Your task to perform on an android device: Open Reddit.com Image 0: 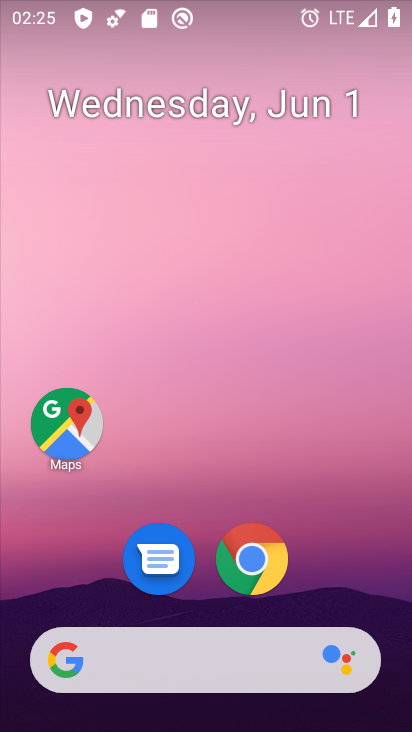
Step 0: press home button
Your task to perform on an android device: Open Reddit.com Image 1: 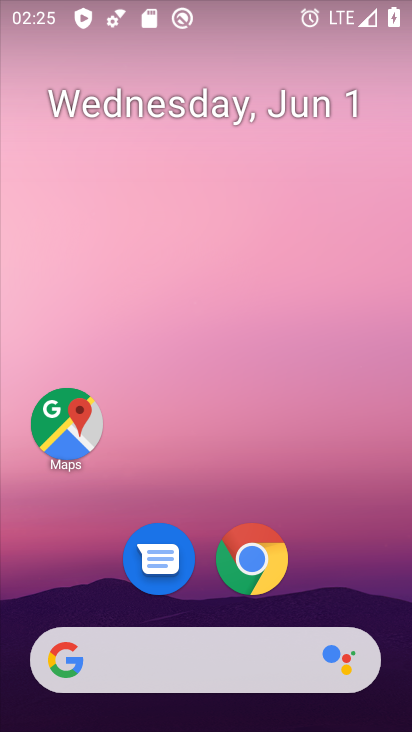
Step 1: click (61, 648)
Your task to perform on an android device: Open Reddit.com Image 2: 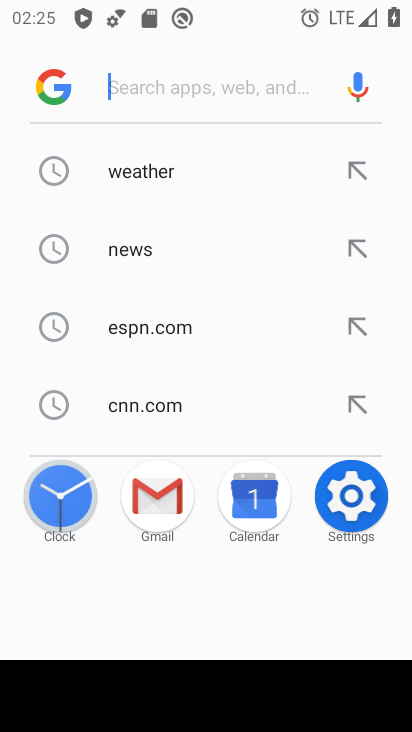
Step 2: type "Reddit.com"
Your task to perform on an android device: Open Reddit.com Image 3: 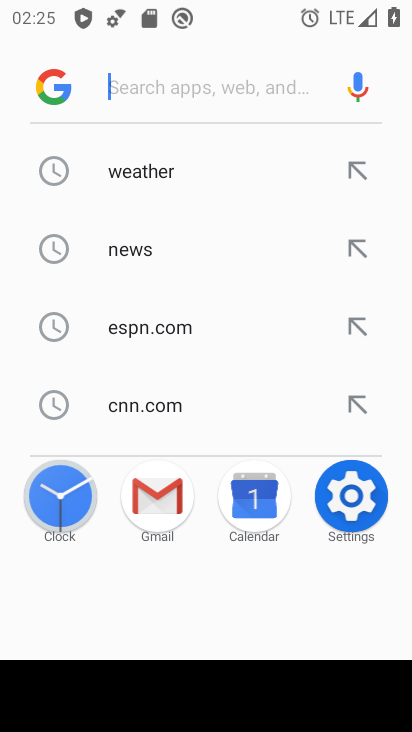
Step 3: click (193, 85)
Your task to perform on an android device: Open Reddit.com Image 4: 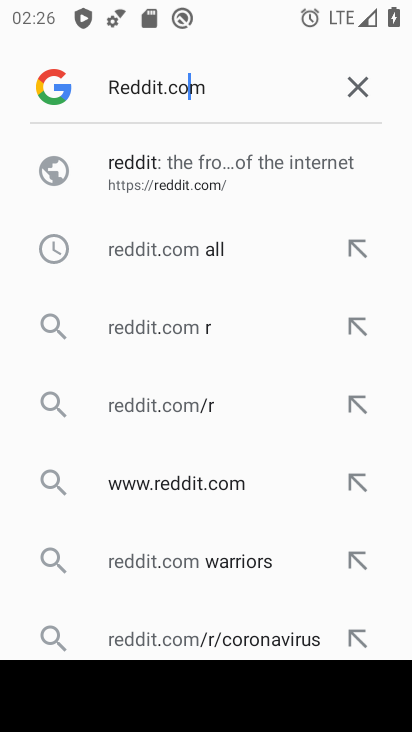
Step 4: click (139, 160)
Your task to perform on an android device: Open Reddit.com Image 5: 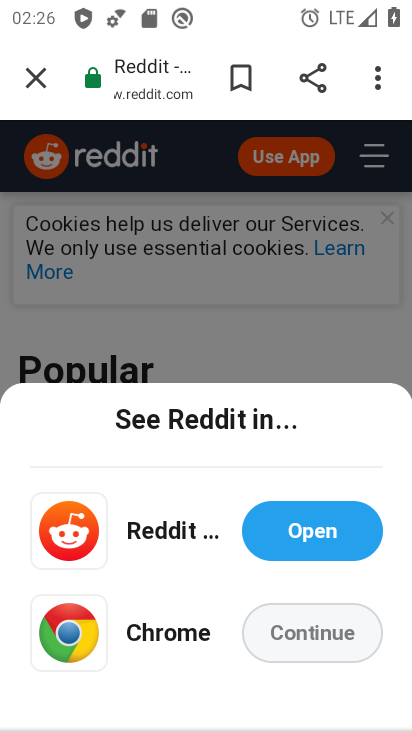
Step 5: task complete